Your task to perform on an android device: uninstall "Walmart Shopping & Grocery" Image 0: 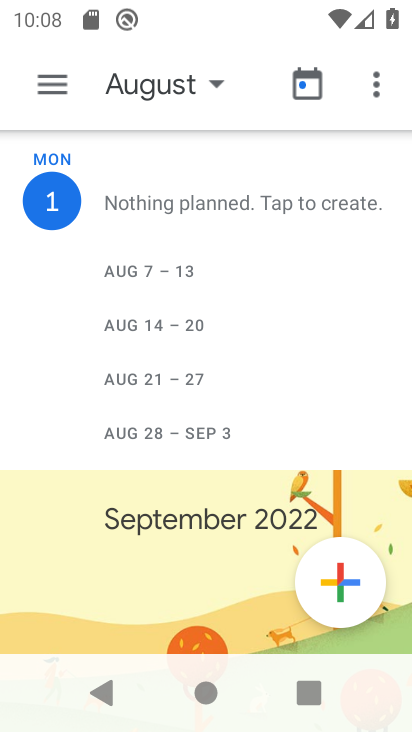
Step 0: press home button
Your task to perform on an android device: uninstall "Walmart Shopping & Grocery" Image 1: 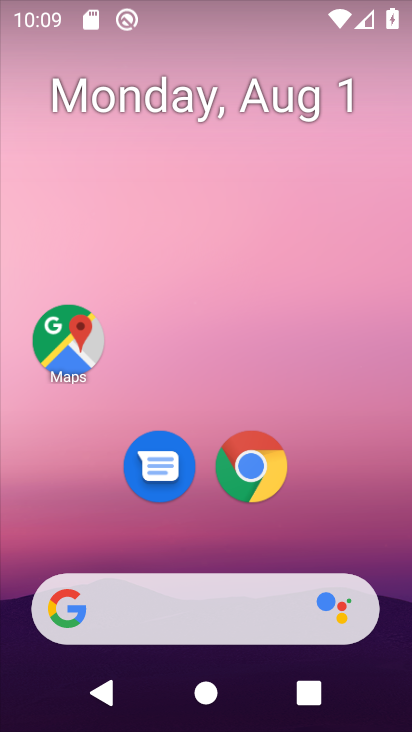
Step 1: drag from (243, 609) to (244, 254)
Your task to perform on an android device: uninstall "Walmart Shopping & Grocery" Image 2: 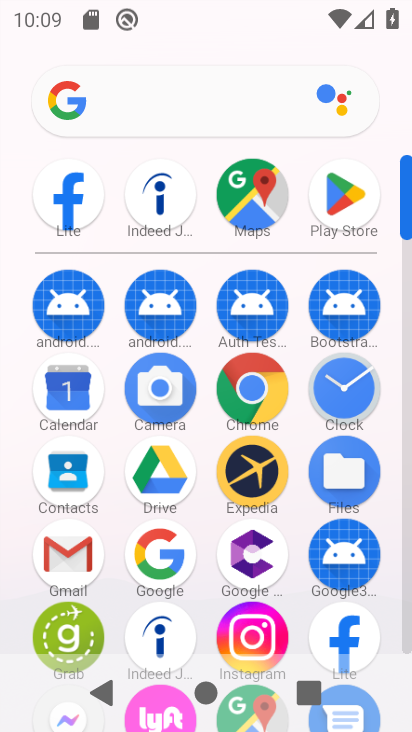
Step 2: click (344, 185)
Your task to perform on an android device: uninstall "Walmart Shopping & Grocery" Image 3: 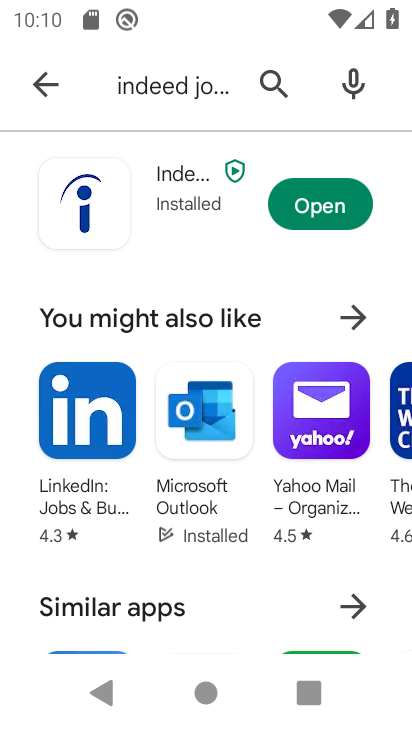
Step 3: click (276, 75)
Your task to perform on an android device: uninstall "Walmart Shopping & Grocery" Image 4: 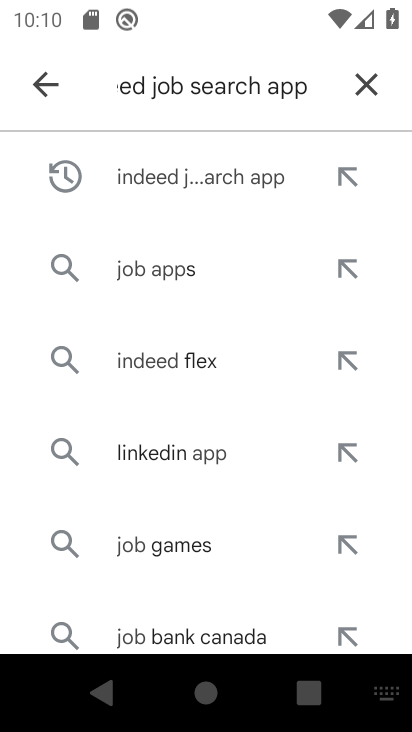
Step 4: click (368, 80)
Your task to perform on an android device: uninstall "Walmart Shopping & Grocery" Image 5: 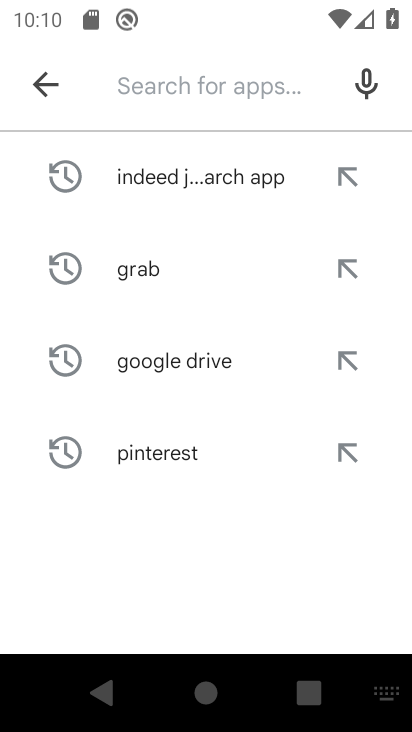
Step 5: type "Walmart Shopping & Grocery"
Your task to perform on an android device: uninstall "Walmart Shopping & Grocery" Image 6: 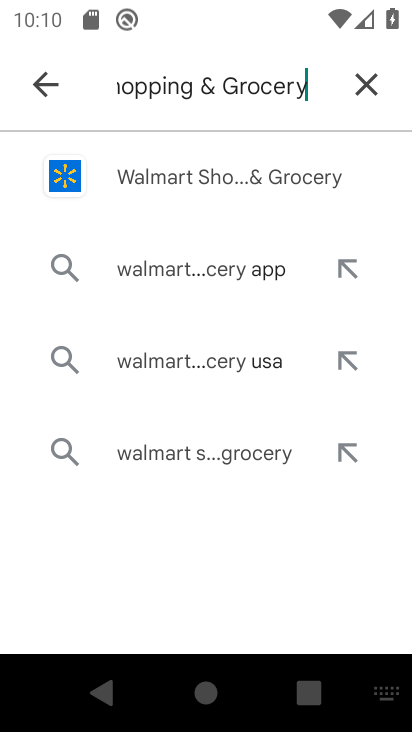
Step 6: click (200, 175)
Your task to perform on an android device: uninstall "Walmart Shopping & Grocery" Image 7: 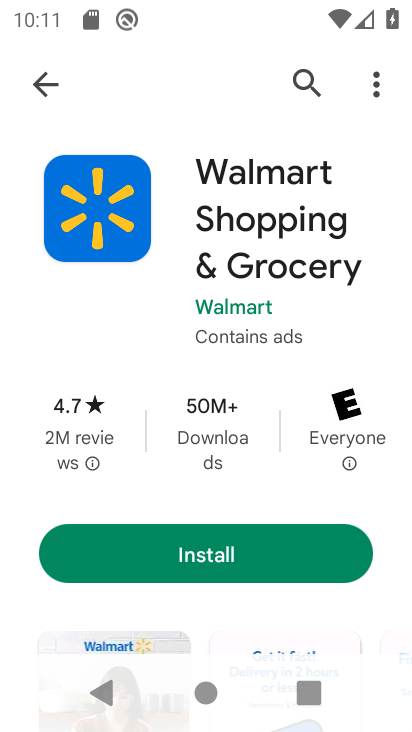
Step 7: task complete